Your task to perform on an android device: Clear the shopping cart on costco. Image 0: 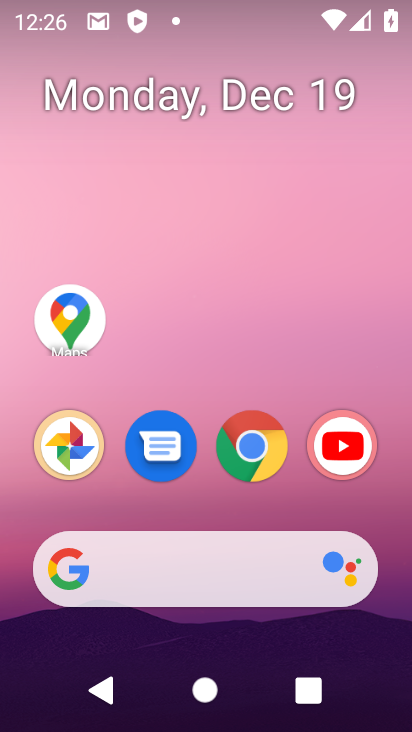
Step 0: click (239, 462)
Your task to perform on an android device: Clear the shopping cart on costco. Image 1: 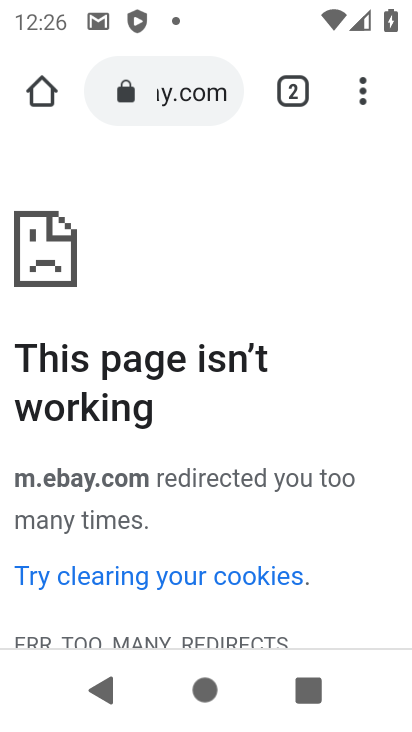
Step 1: press home button
Your task to perform on an android device: Clear the shopping cart on costco. Image 2: 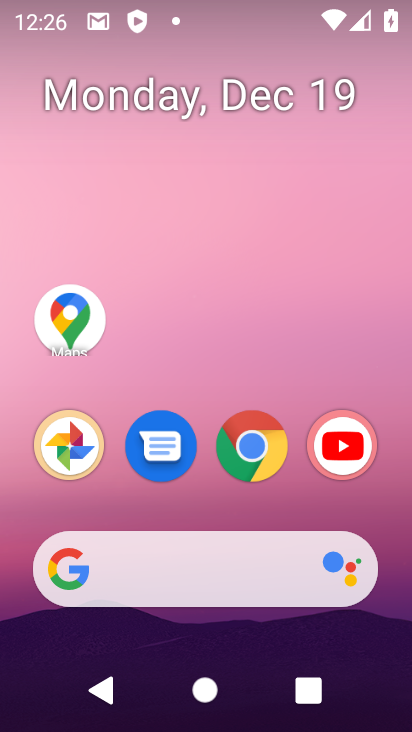
Step 2: click (268, 466)
Your task to perform on an android device: Clear the shopping cart on costco. Image 3: 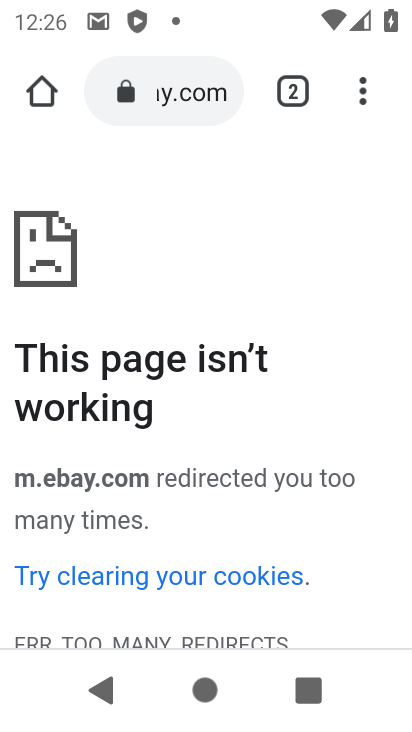
Step 3: click (189, 93)
Your task to perform on an android device: Clear the shopping cart on costco. Image 4: 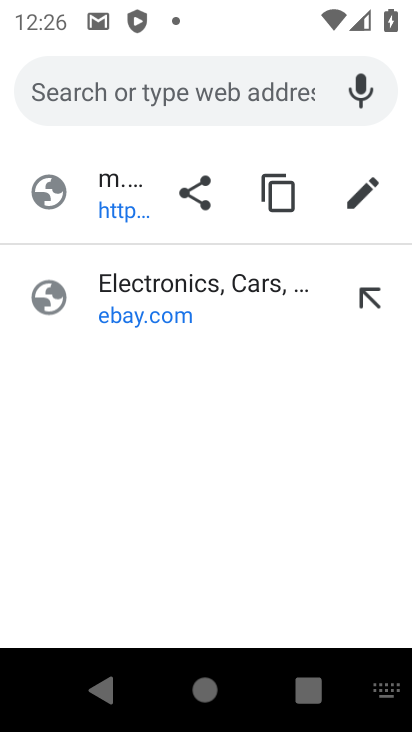
Step 4: type "costco"
Your task to perform on an android device: Clear the shopping cart on costco. Image 5: 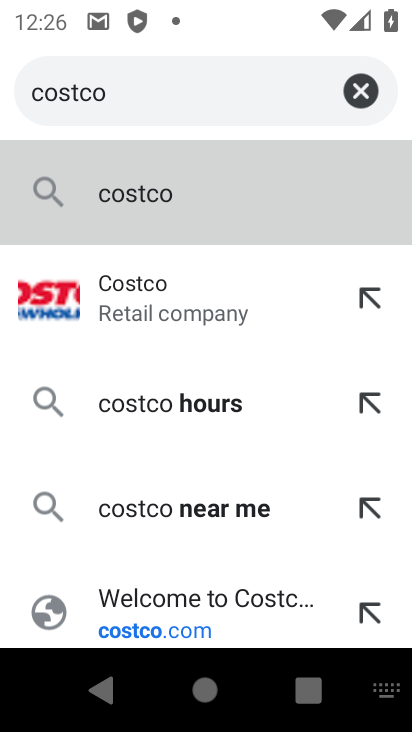
Step 5: click (178, 275)
Your task to perform on an android device: Clear the shopping cart on costco. Image 6: 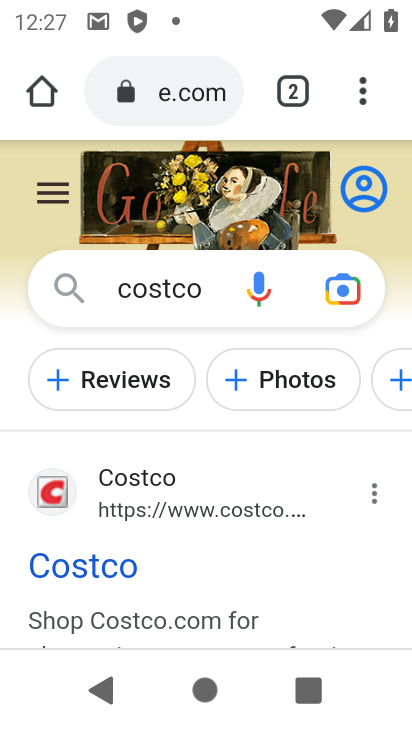
Step 6: click (144, 575)
Your task to perform on an android device: Clear the shopping cart on costco. Image 7: 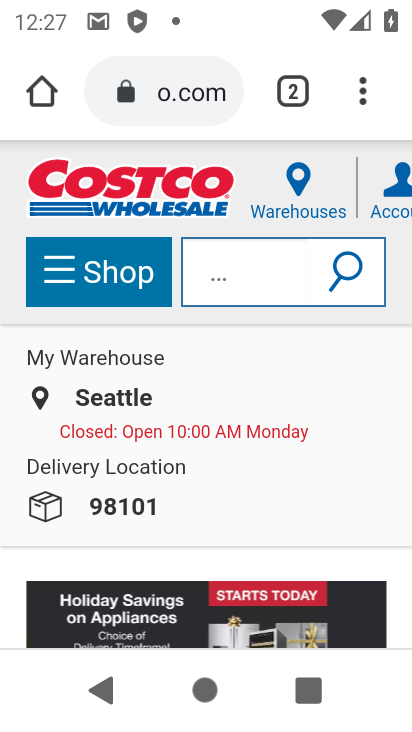
Step 7: drag from (328, 210) to (6, 211)
Your task to perform on an android device: Clear the shopping cart on costco. Image 8: 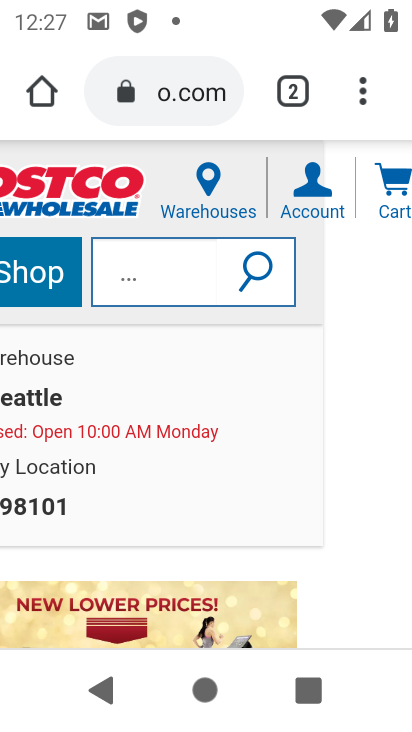
Step 8: click (372, 178)
Your task to perform on an android device: Clear the shopping cart on costco. Image 9: 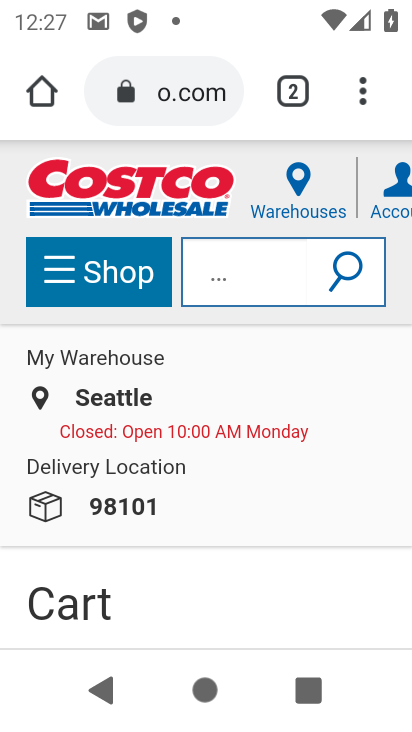
Step 9: task complete